Your task to perform on an android device: Open Maps and search for coffee Image 0: 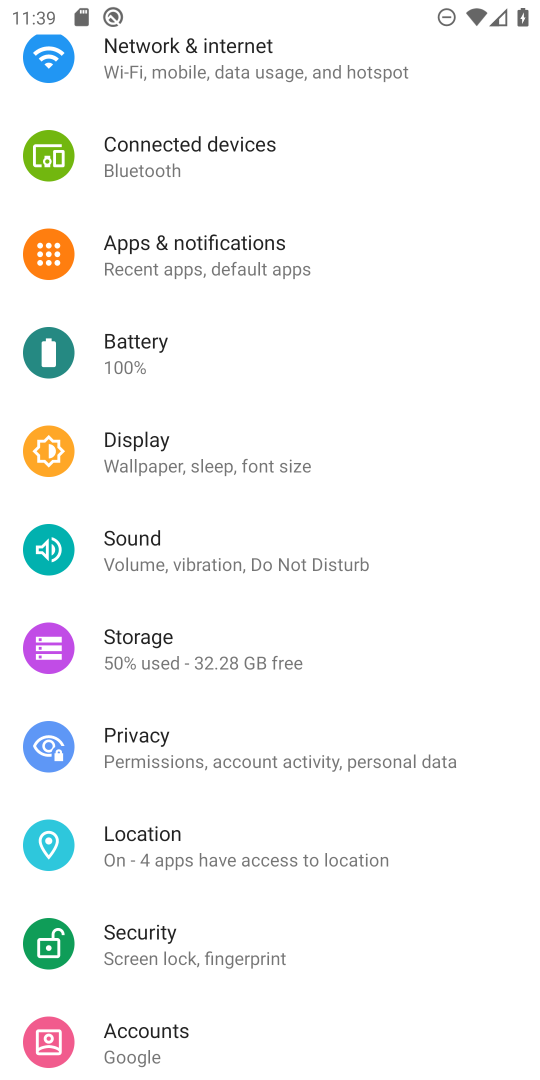
Step 0: press home button
Your task to perform on an android device: Open Maps and search for coffee Image 1: 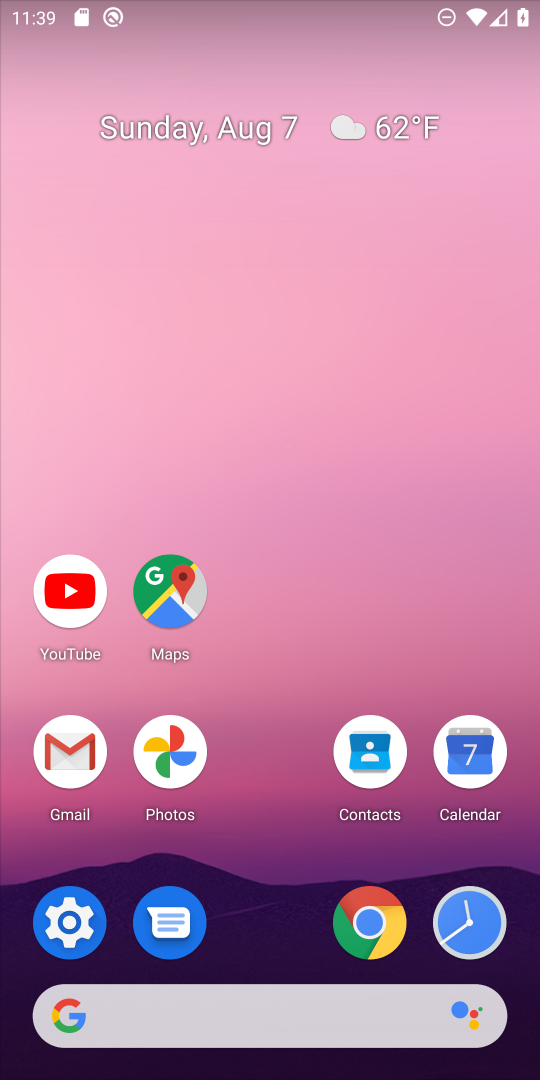
Step 1: click (176, 589)
Your task to perform on an android device: Open Maps and search for coffee Image 2: 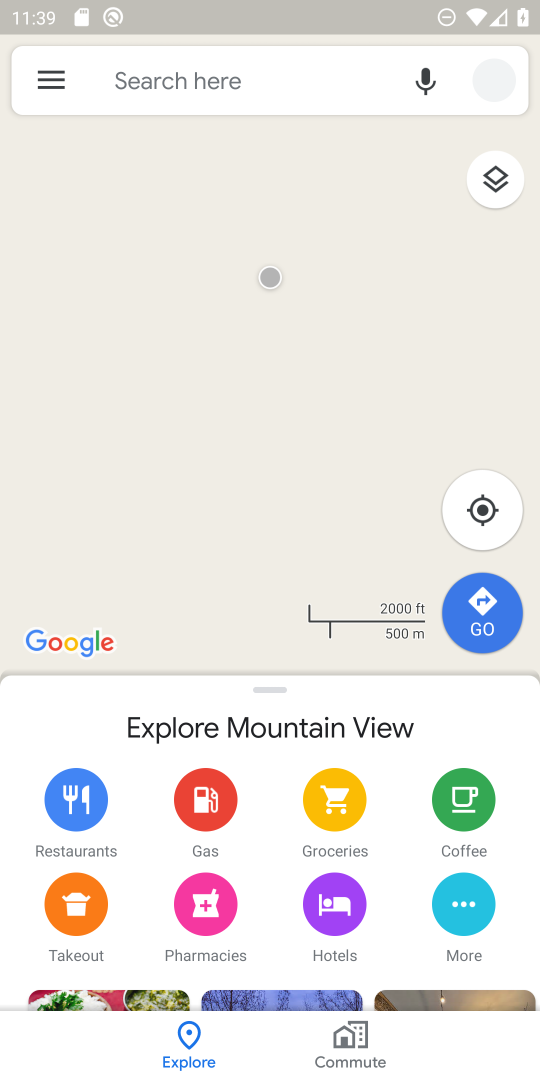
Step 2: click (204, 90)
Your task to perform on an android device: Open Maps and search for coffee Image 3: 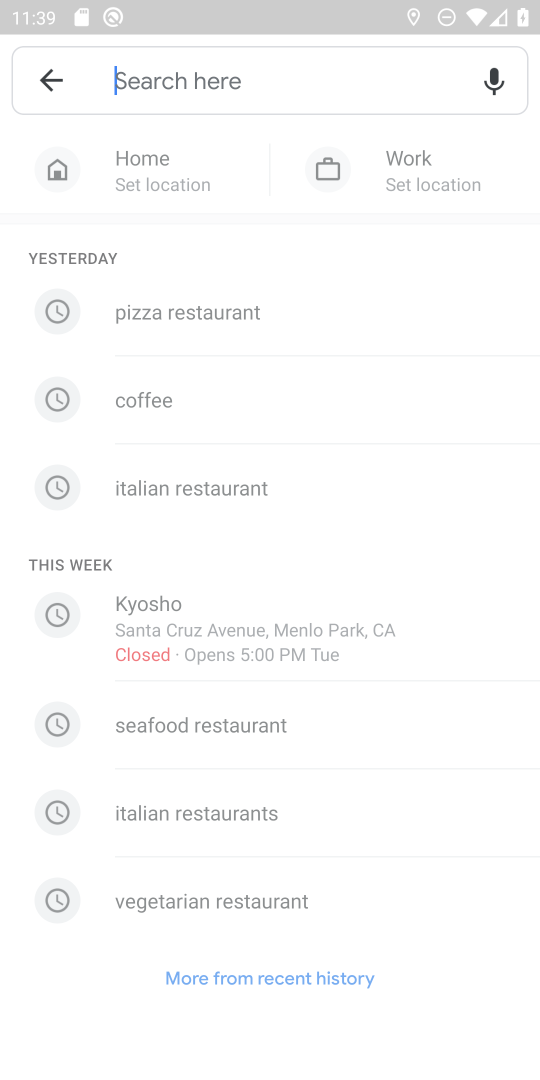
Step 3: click (145, 381)
Your task to perform on an android device: Open Maps and search for coffee Image 4: 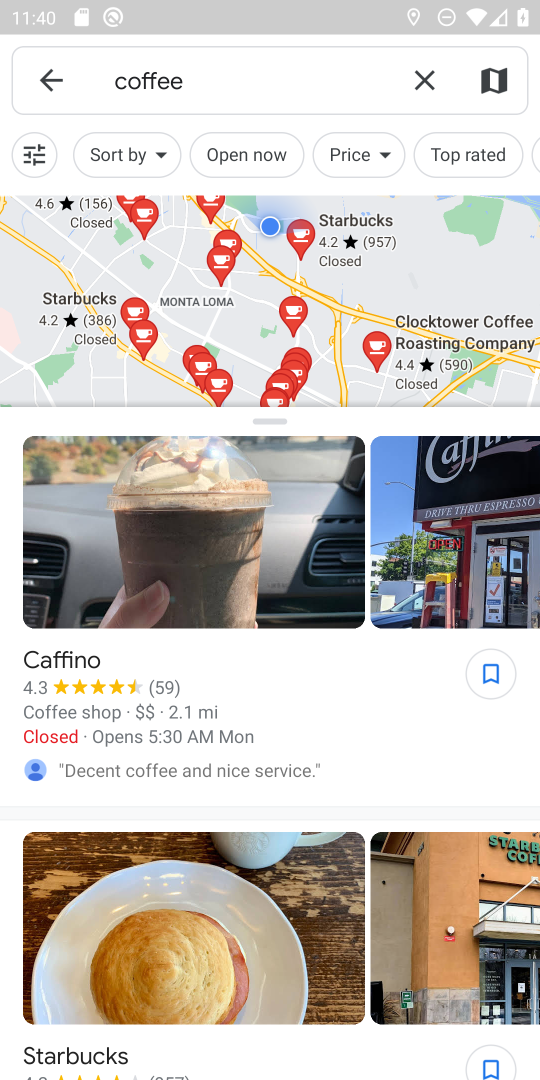
Step 4: task complete